Your task to perform on an android device: Open settings on Google Maps Image 0: 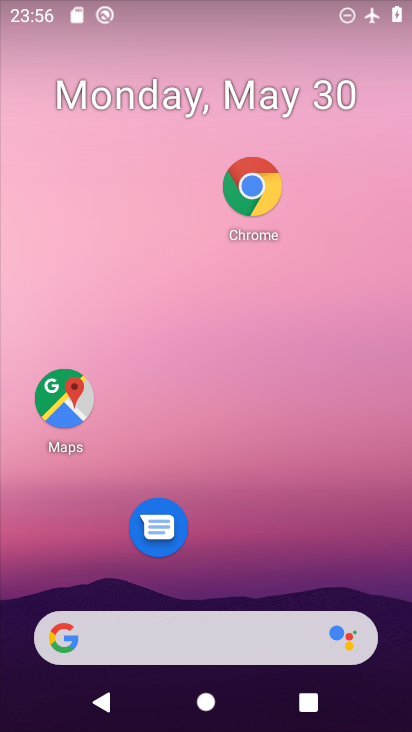
Step 0: drag from (296, 575) to (345, 292)
Your task to perform on an android device: Open settings on Google Maps Image 1: 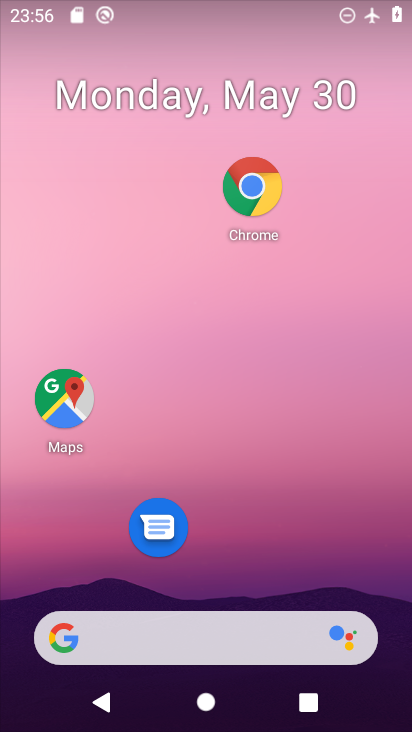
Step 1: drag from (252, 587) to (287, 282)
Your task to perform on an android device: Open settings on Google Maps Image 2: 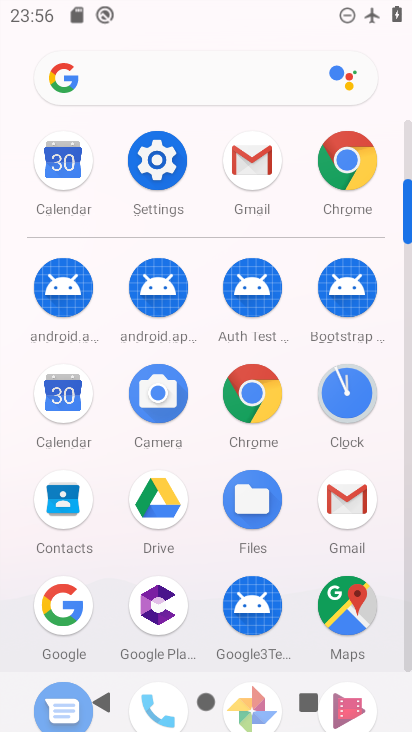
Step 2: drag from (103, 566) to (126, 317)
Your task to perform on an android device: Open settings on Google Maps Image 3: 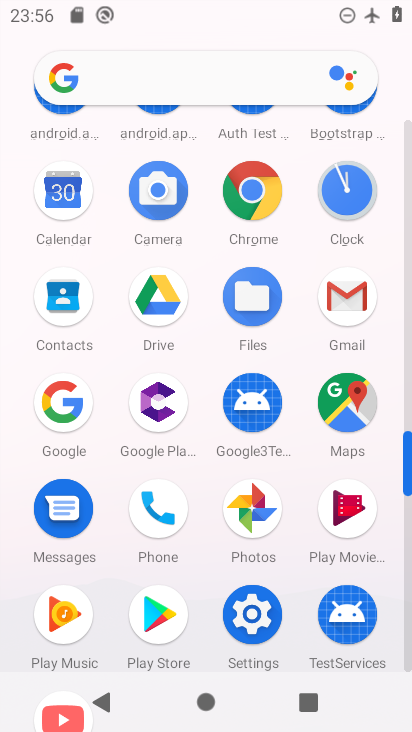
Step 3: click (349, 393)
Your task to perform on an android device: Open settings on Google Maps Image 4: 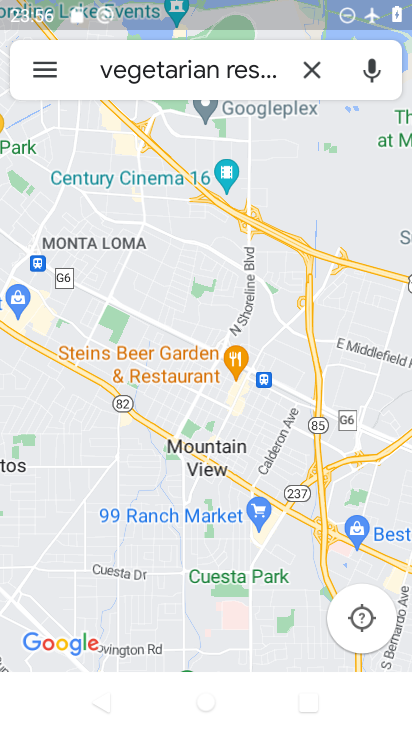
Step 4: click (38, 61)
Your task to perform on an android device: Open settings on Google Maps Image 5: 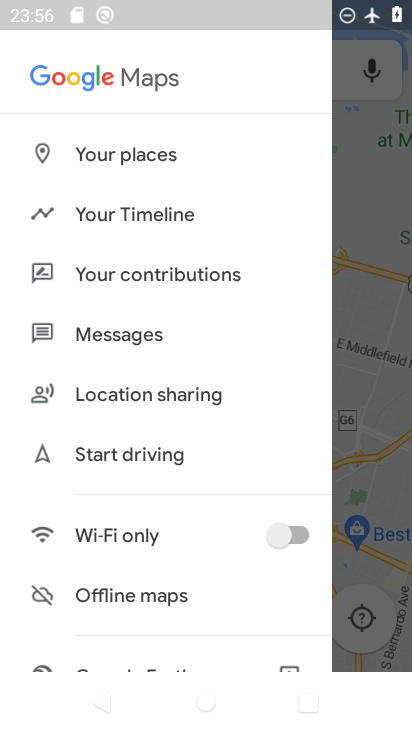
Step 5: drag from (155, 577) to (184, 370)
Your task to perform on an android device: Open settings on Google Maps Image 6: 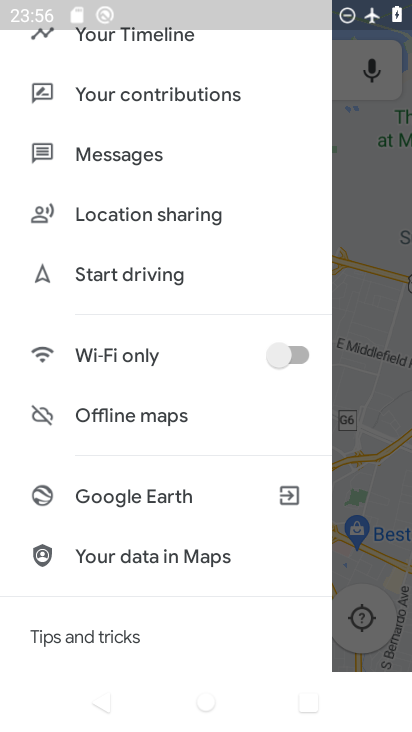
Step 6: drag from (156, 620) to (204, 387)
Your task to perform on an android device: Open settings on Google Maps Image 7: 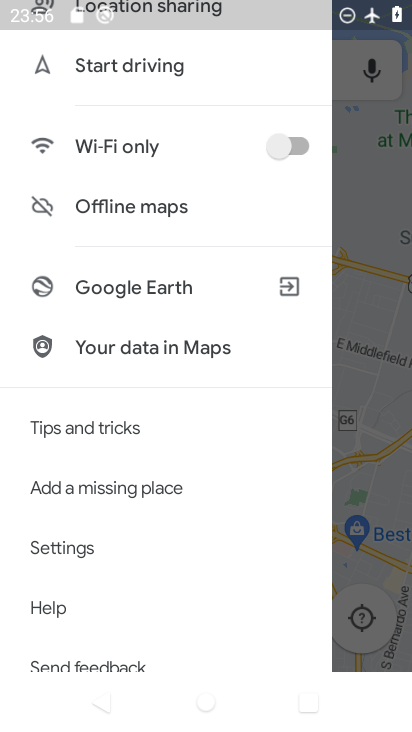
Step 7: click (83, 553)
Your task to perform on an android device: Open settings on Google Maps Image 8: 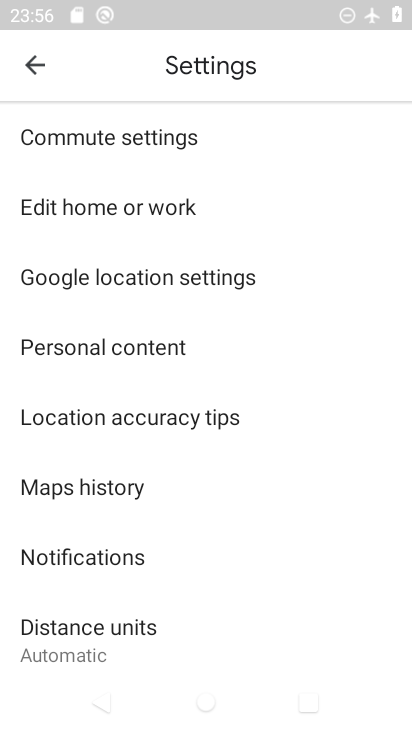
Step 8: task complete